Your task to perform on an android device: Go to network settings Image 0: 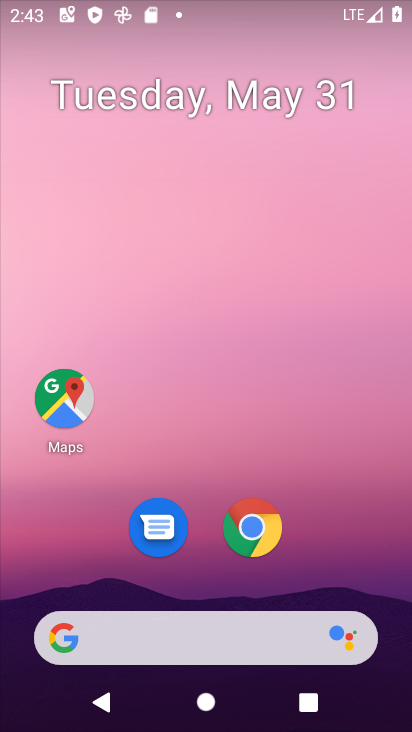
Step 0: drag from (359, 531) to (287, 135)
Your task to perform on an android device: Go to network settings Image 1: 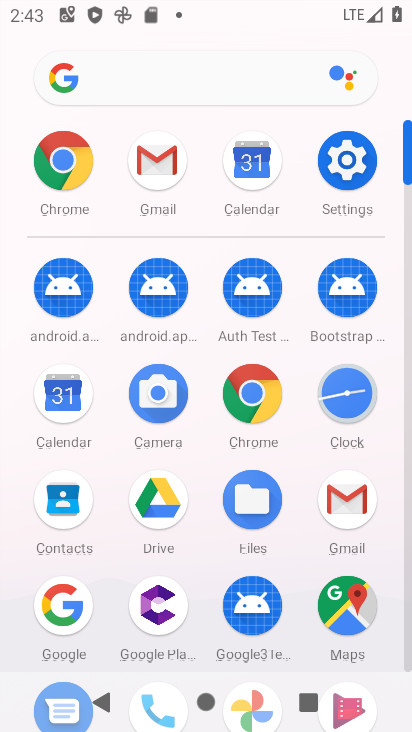
Step 1: click (359, 158)
Your task to perform on an android device: Go to network settings Image 2: 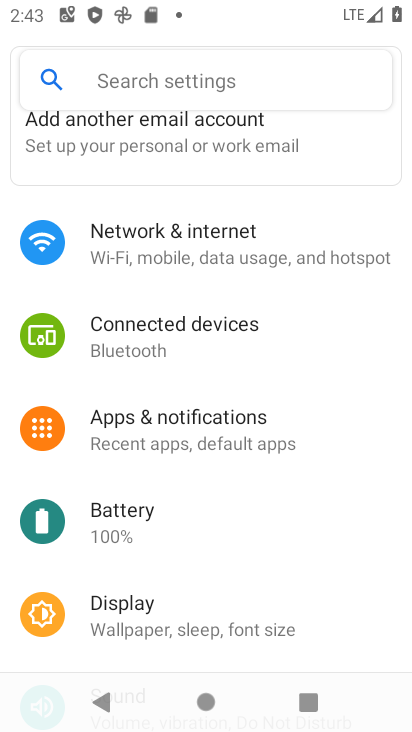
Step 2: drag from (209, 183) to (202, 584)
Your task to perform on an android device: Go to network settings Image 3: 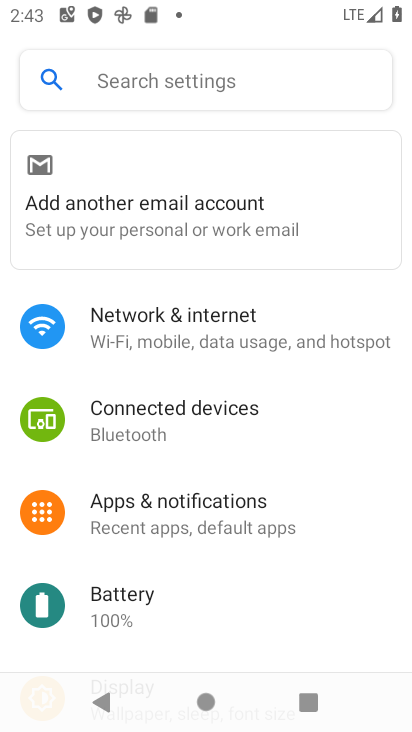
Step 3: click (197, 302)
Your task to perform on an android device: Go to network settings Image 4: 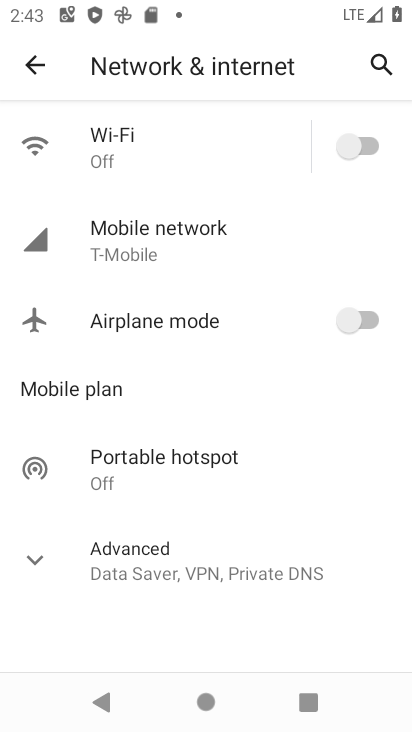
Step 4: task complete